Your task to perform on an android device: open device folders in google photos Image 0: 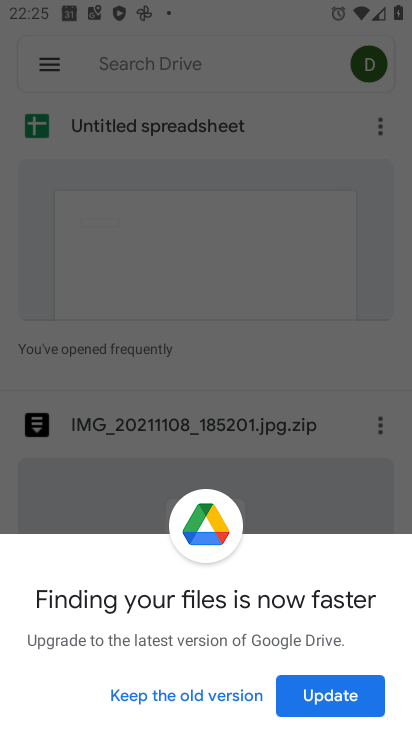
Step 0: press home button
Your task to perform on an android device: open device folders in google photos Image 1: 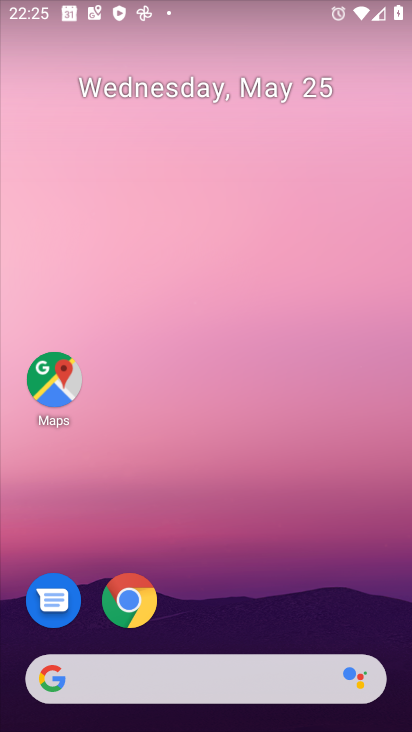
Step 1: drag from (243, 499) to (234, 175)
Your task to perform on an android device: open device folders in google photos Image 2: 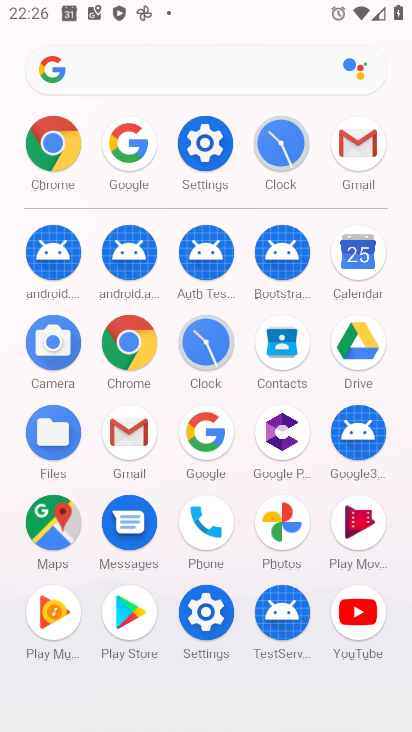
Step 2: click (283, 528)
Your task to perform on an android device: open device folders in google photos Image 3: 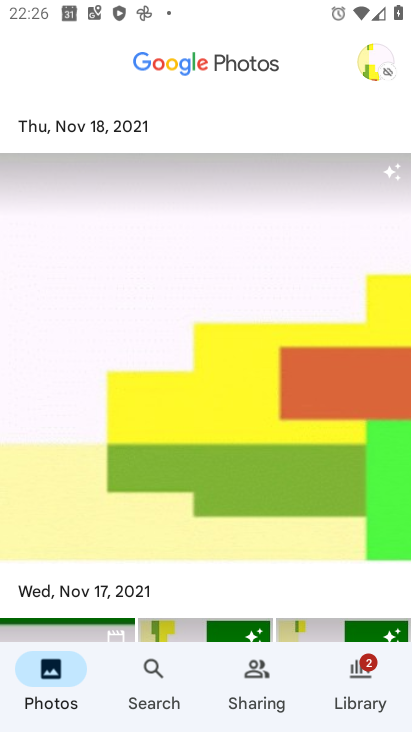
Step 3: click (377, 61)
Your task to perform on an android device: open device folders in google photos Image 4: 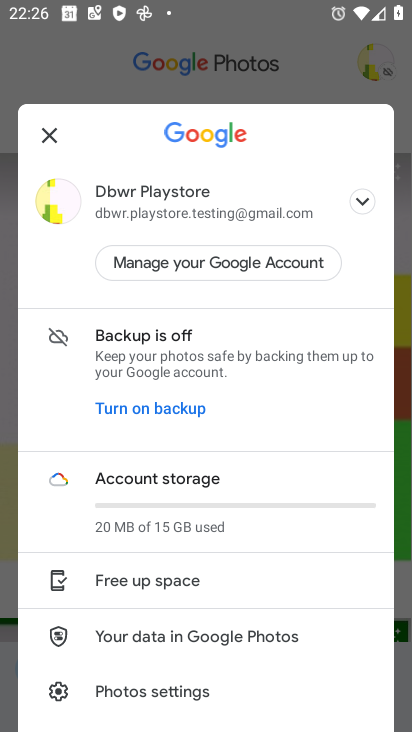
Step 4: task complete